Your task to perform on an android device: turn notification dots on Image 0: 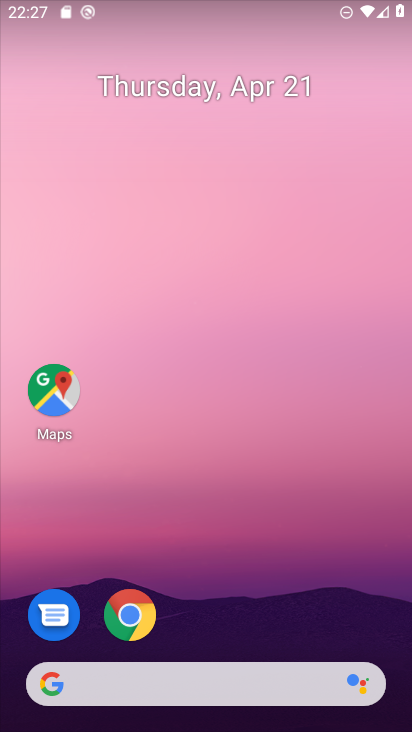
Step 0: drag from (202, 624) to (265, 139)
Your task to perform on an android device: turn notification dots on Image 1: 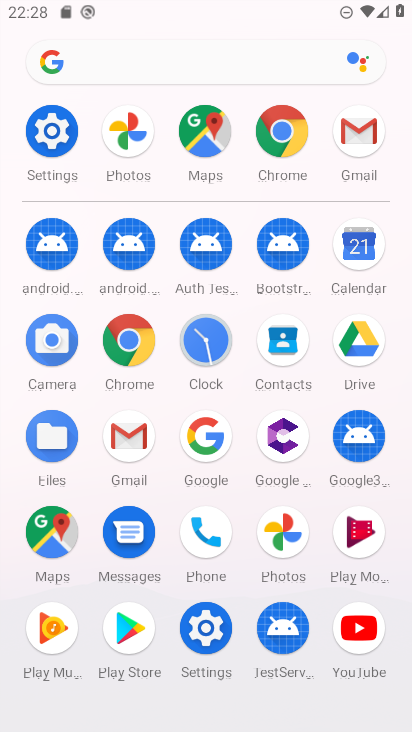
Step 1: drag from (245, 665) to (321, 181)
Your task to perform on an android device: turn notification dots on Image 2: 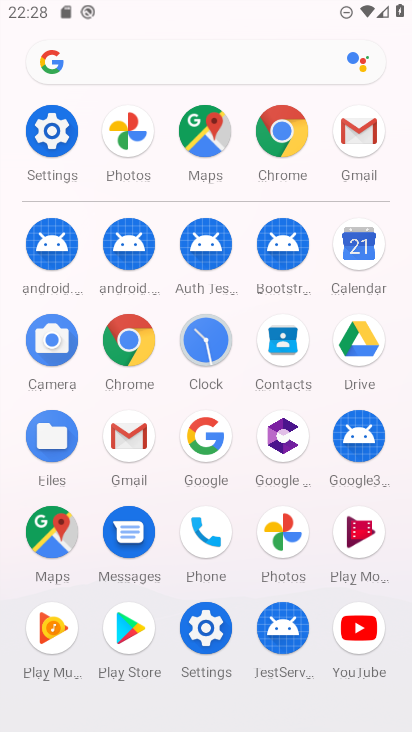
Step 2: click (196, 626)
Your task to perform on an android device: turn notification dots on Image 3: 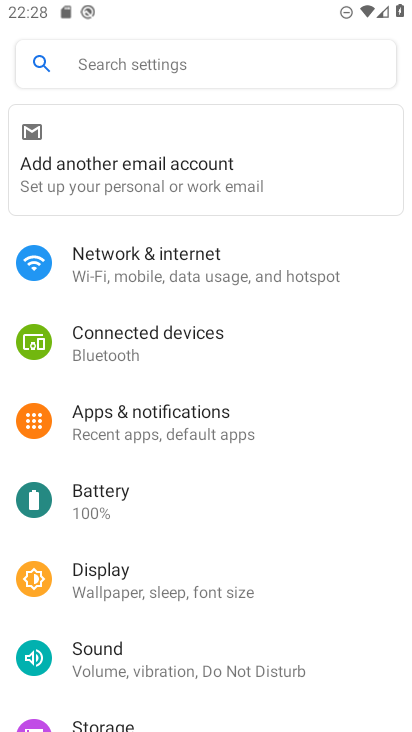
Step 3: click (168, 418)
Your task to perform on an android device: turn notification dots on Image 4: 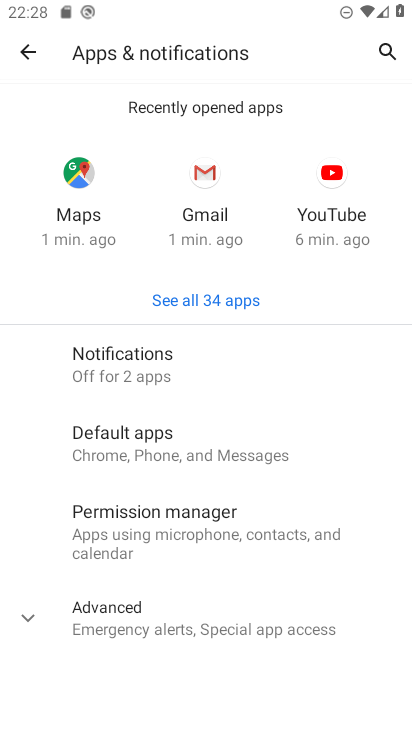
Step 4: click (189, 358)
Your task to perform on an android device: turn notification dots on Image 5: 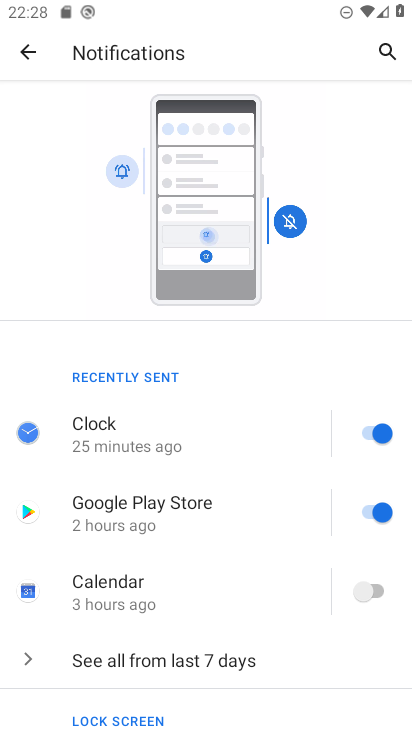
Step 5: drag from (273, 515) to (347, 81)
Your task to perform on an android device: turn notification dots on Image 6: 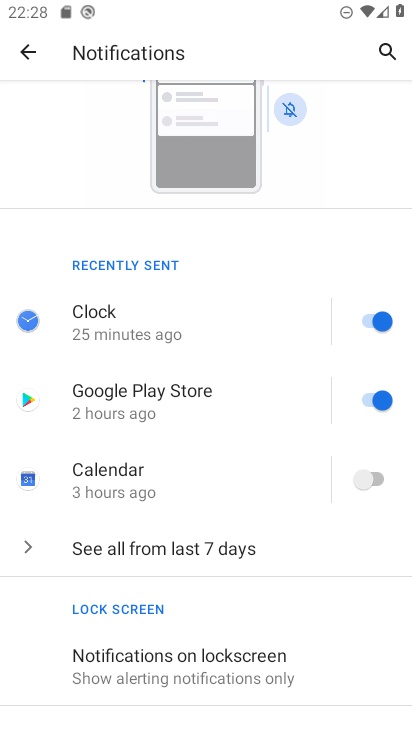
Step 6: drag from (231, 662) to (313, 162)
Your task to perform on an android device: turn notification dots on Image 7: 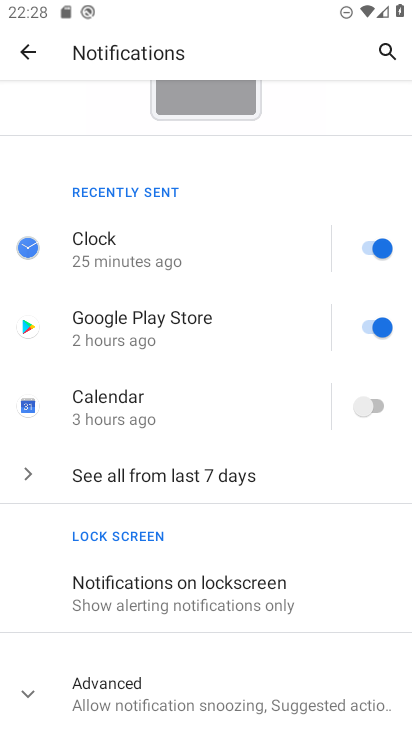
Step 7: click (178, 694)
Your task to perform on an android device: turn notification dots on Image 8: 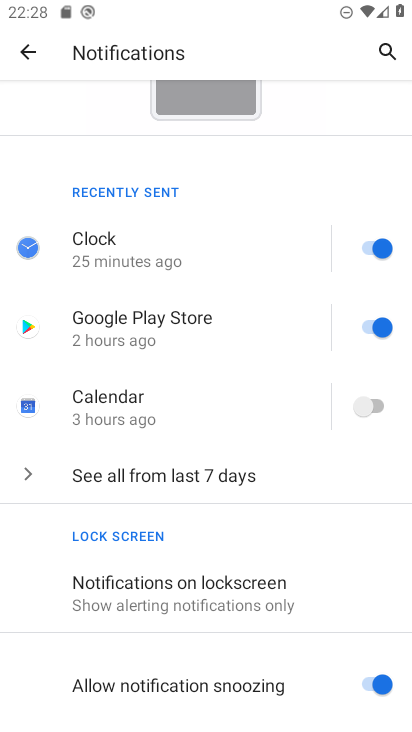
Step 8: task complete